Your task to perform on an android device: Open my contact list Image 0: 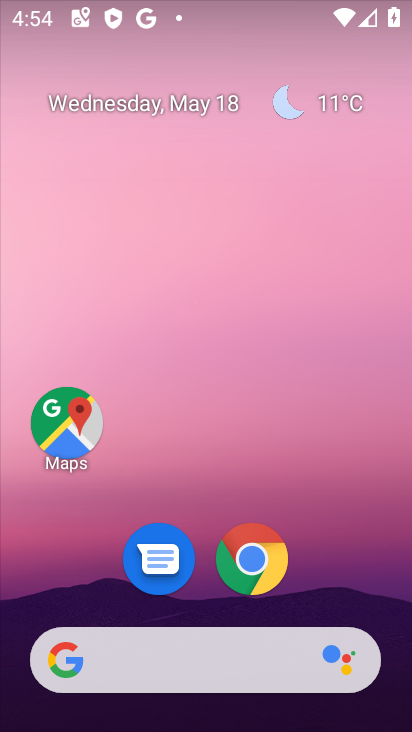
Step 0: drag from (213, 502) to (279, 73)
Your task to perform on an android device: Open my contact list Image 1: 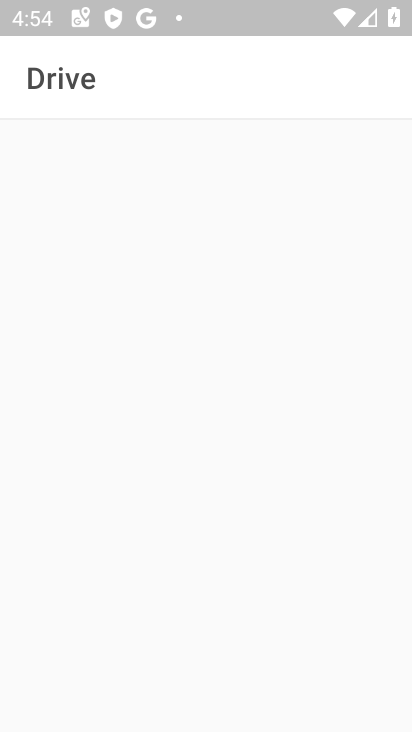
Step 1: press back button
Your task to perform on an android device: Open my contact list Image 2: 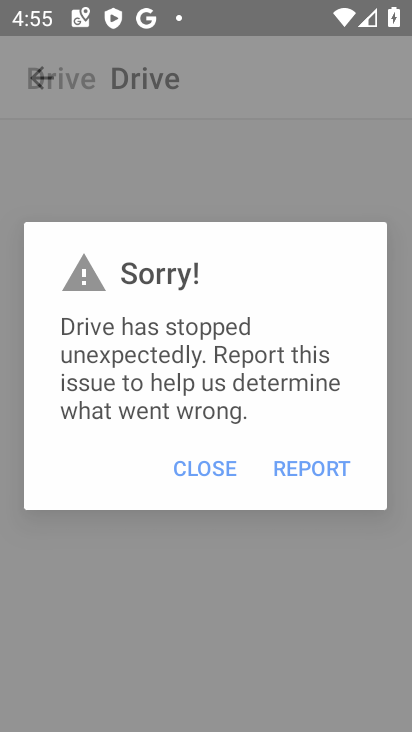
Step 2: press home button
Your task to perform on an android device: Open my contact list Image 3: 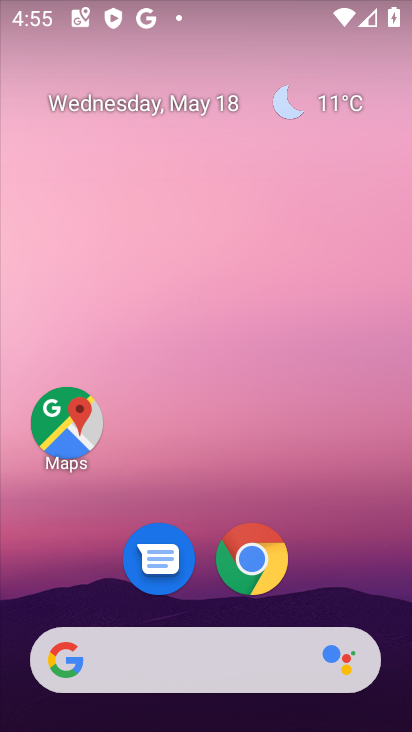
Step 3: press home button
Your task to perform on an android device: Open my contact list Image 4: 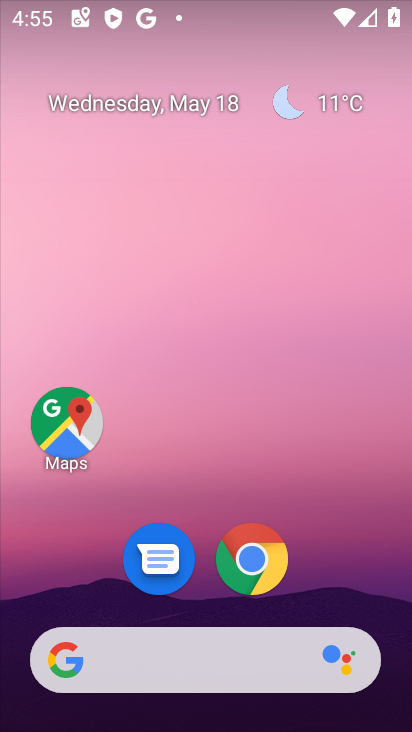
Step 4: drag from (213, 587) to (216, 77)
Your task to perform on an android device: Open my contact list Image 5: 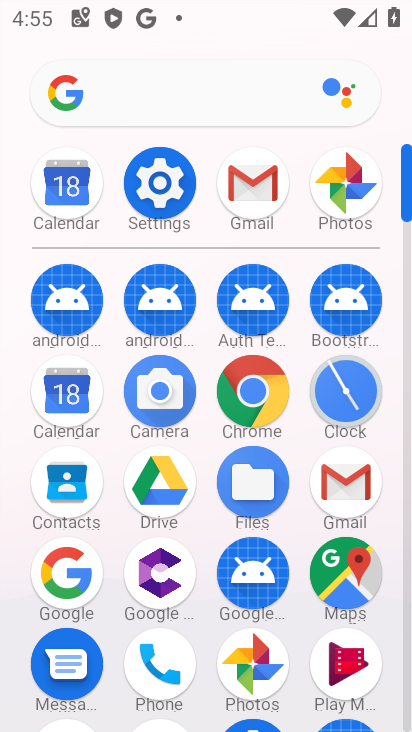
Step 5: click (58, 485)
Your task to perform on an android device: Open my contact list Image 6: 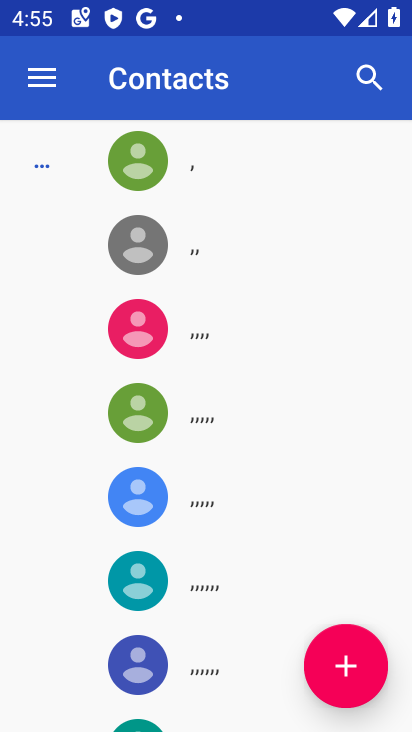
Step 6: click (358, 661)
Your task to perform on an android device: Open my contact list Image 7: 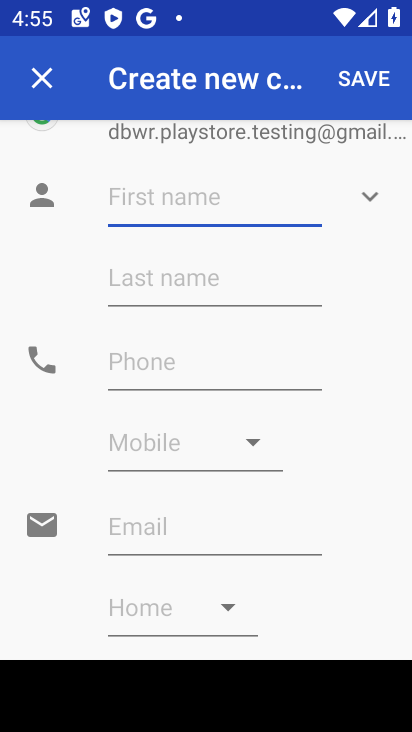
Step 7: click (50, 69)
Your task to perform on an android device: Open my contact list Image 8: 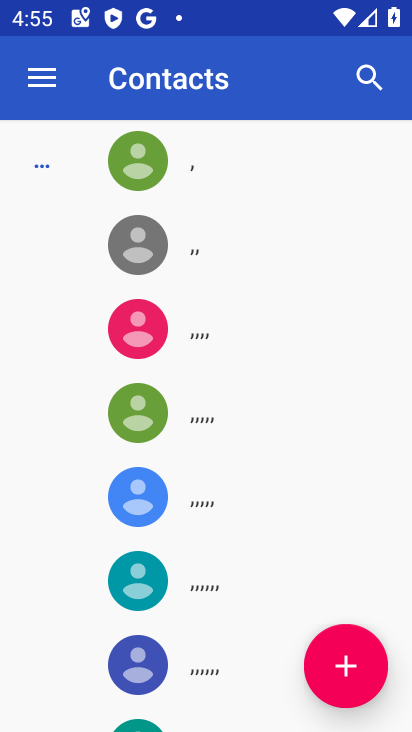
Step 8: task complete